Your task to perform on an android device: delete location history Image 0: 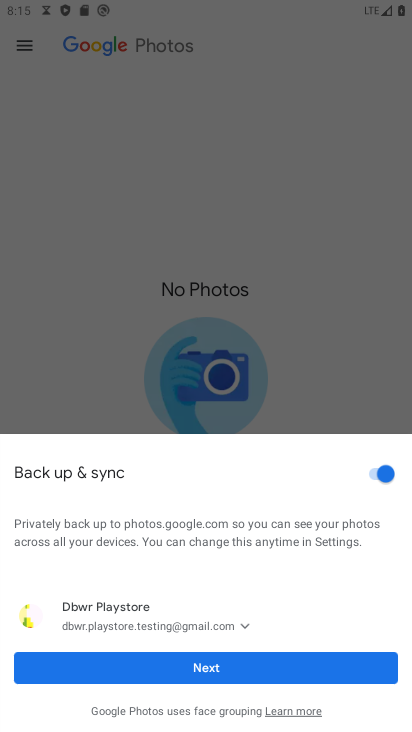
Step 0: press home button
Your task to perform on an android device: delete location history Image 1: 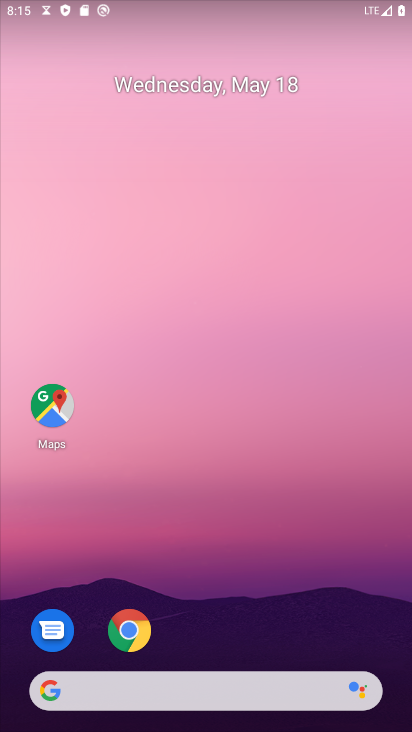
Step 1: drag from (309, 537) to (407, 15)
Your task to perform on an android device: delete location history Image 2: 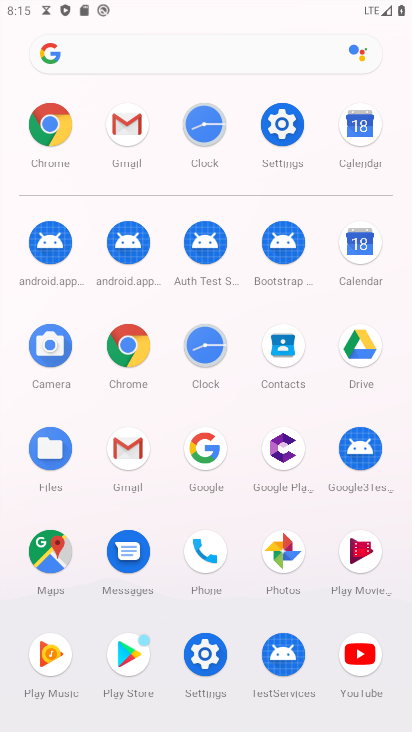
Step 2: click (33, 552)
Your task to perform on an android device: delete location history Image 3: 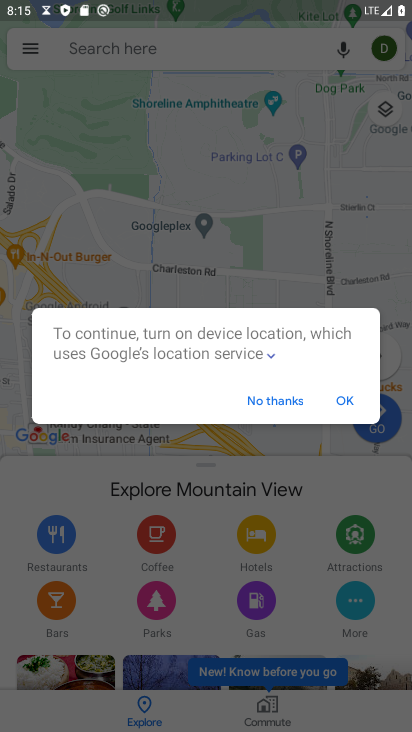
Step 3: click (32, 54)
Your task to perform on an android device: delete location history Image 4: 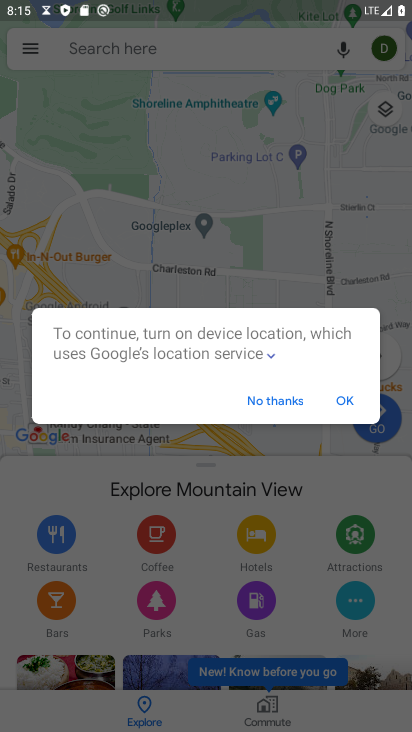
Step 4: click (278, 403)
Your task to perform on an android device: delete location history Image 5: 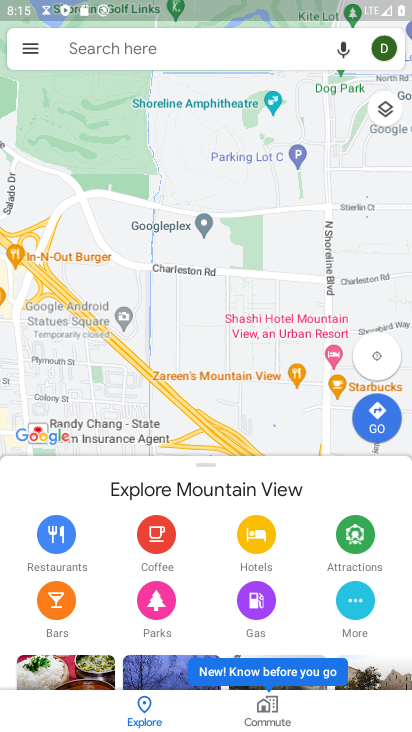
Step 5: click (23, 44)
Your task to perform on an android device: delete location history Image 6: 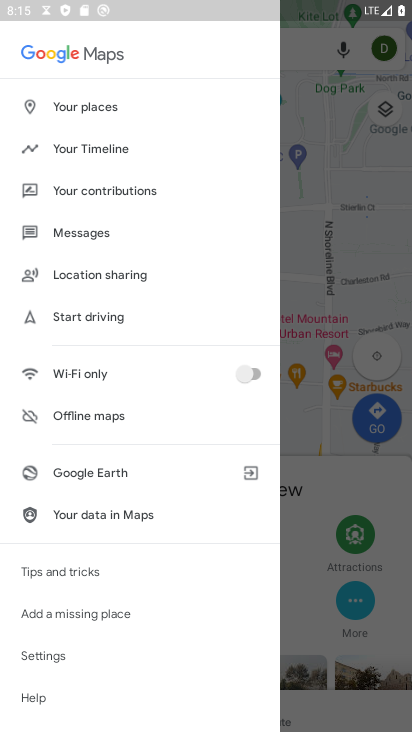
Step 6: click (56, 139)
Your task to perform on an android device: delete location history Image 7: 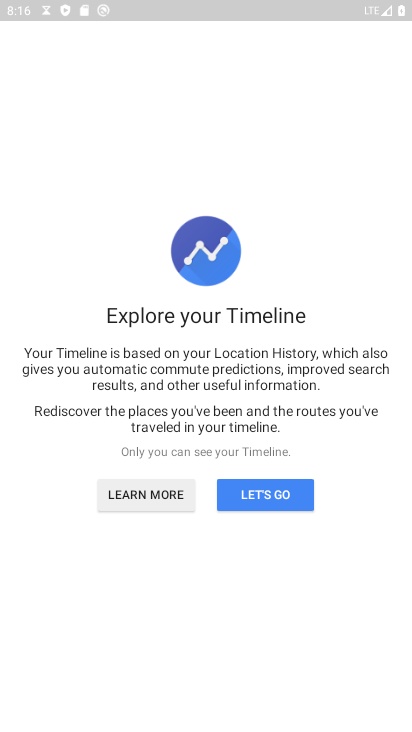
Step 7: click (268, 493)
Your task to perform on an android device: delete location history Image 8: 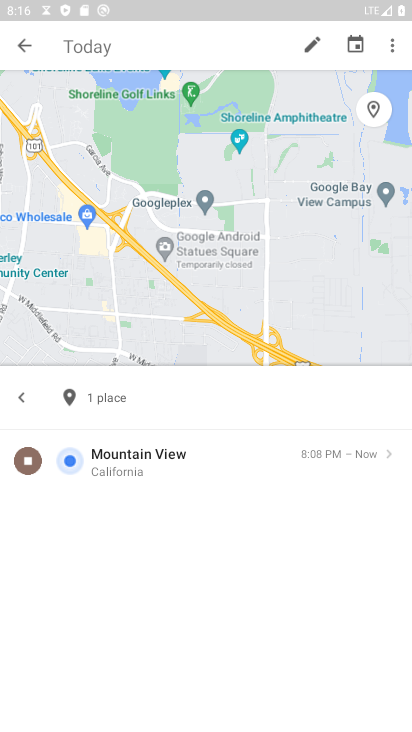
Step 8: click (389, 48)
Your task to perform on an android device: delete location history Image 9: 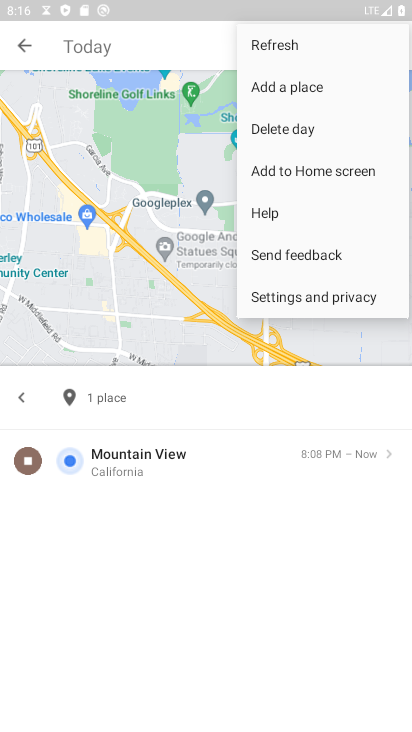
Step 9: click (277, 296)
Your task to perform on an android device: delete location history Image 10: 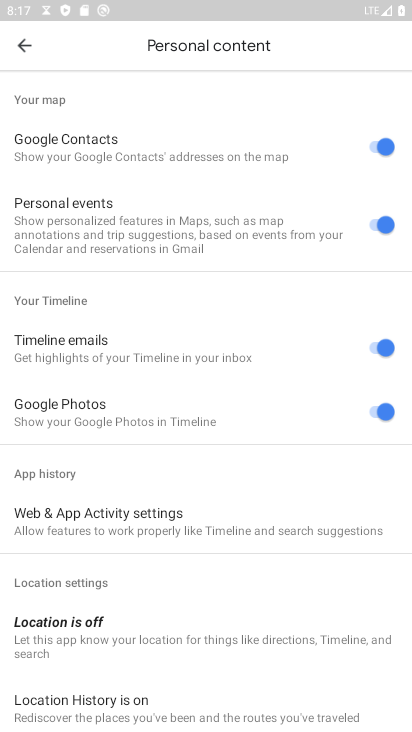
Step 10: drag from (127, 526) to (142, 238)
Your task to perform on an android device: delete location history Image 11: 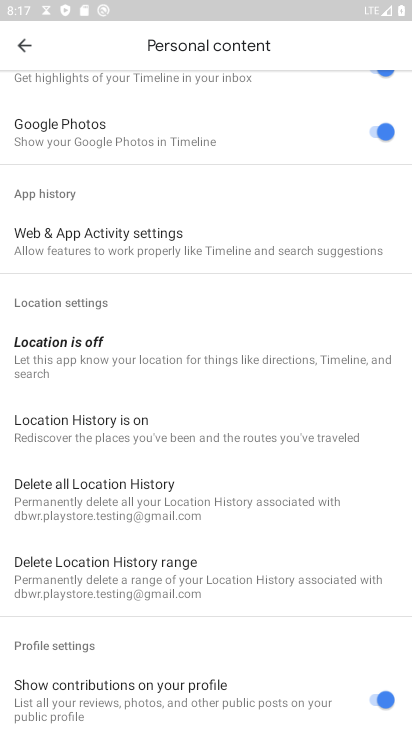
Step 11: click (142, 484)
Your task to perform on an android device: delete location history Image 12: 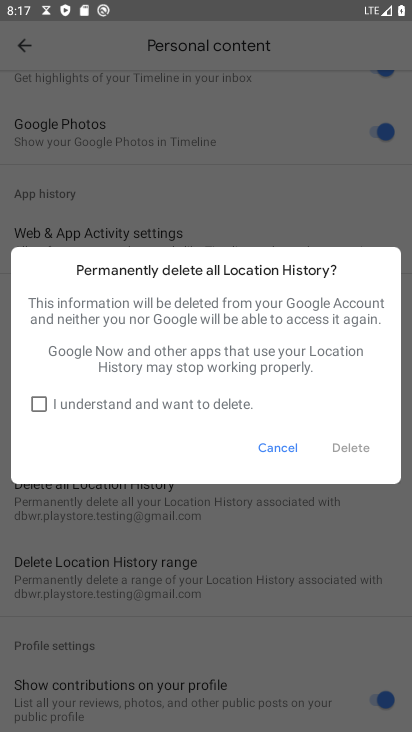
Step 12: click (47, 411)
Your task to perform on an android device: delete location history Image 13: 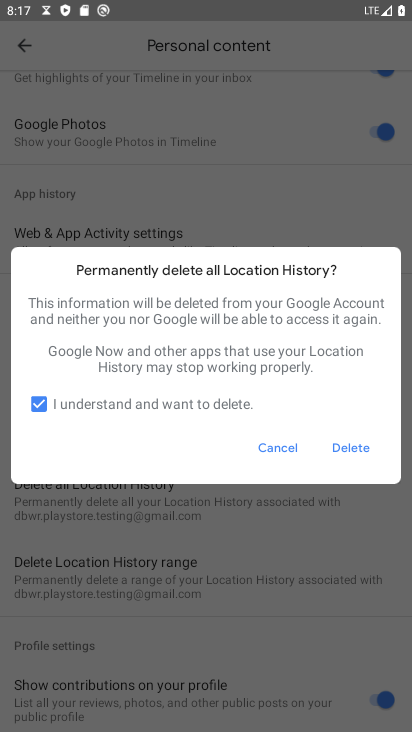
Step 13: click (367, 435)
Your task to perform on an android device: delete location history Image 14: 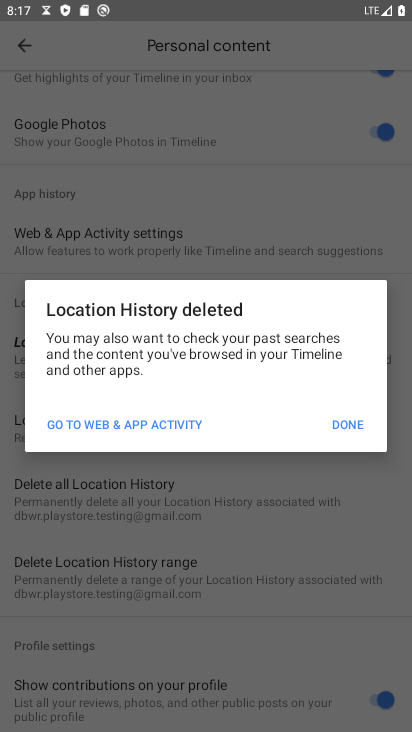
Step 14: click (350, 438)
Your task to perform on an android device: delete location history Image 15: 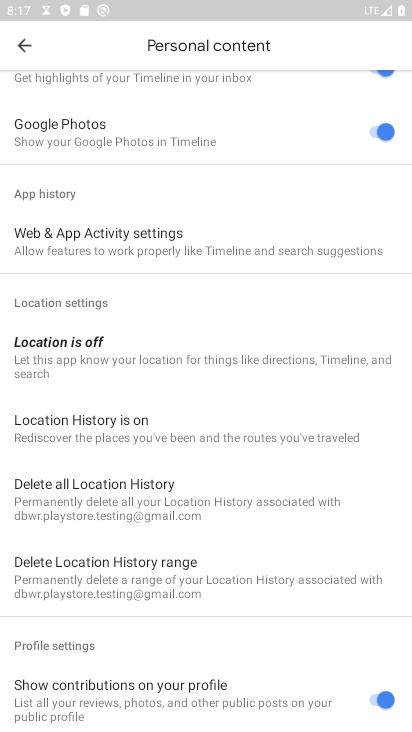
Step 15: task complete